Your task to perform on an android device: toggle sleep mode Image 0: 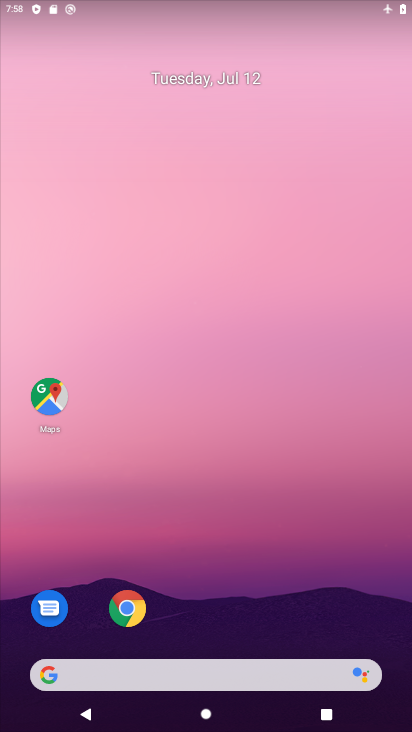
Step 0: drag from (200, 652) to (160, 142)
Your task to perform on an android device: toggle sleep mode Image 1: 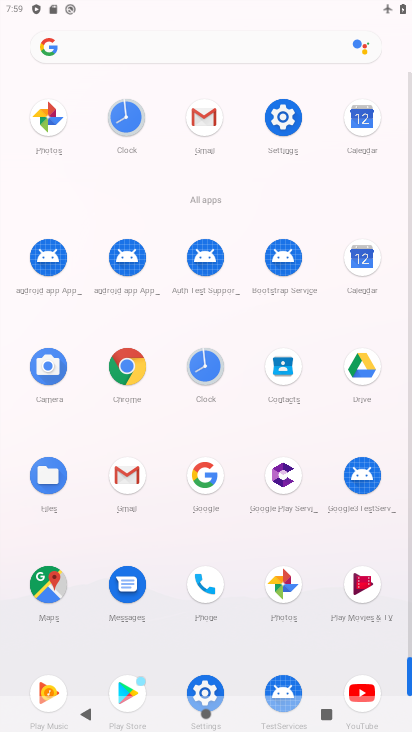
Step 1: click (284, 114)
Your task to perform on an android device: toggle sleep mode Image 2: 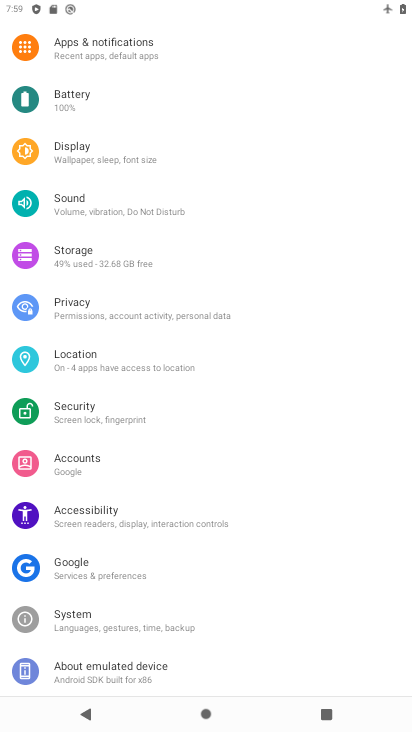
Step 2: task complete